Your task to perform on an android device: toggle sleep mode Image 0: 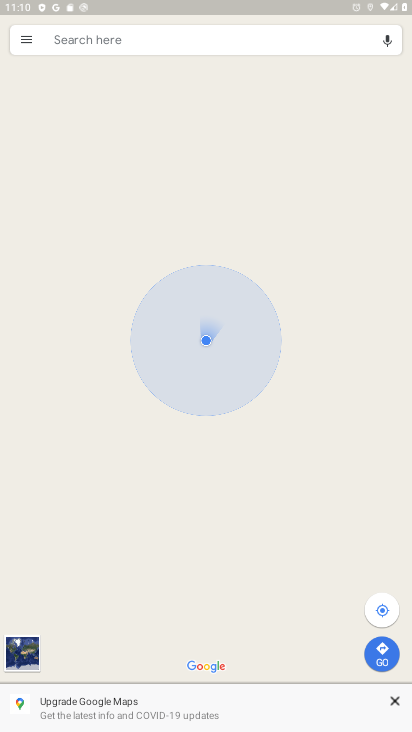
Step 0: press home button
Your task to perform on an android device: toggle sleep mode Image 1: 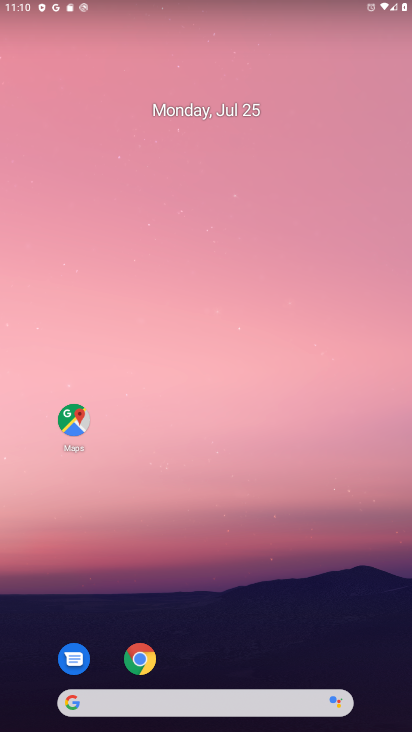
Step 1: drag from (236, 560) to (128, 3)
Your task to perform on an android device: toggle sleep mode Image 2: 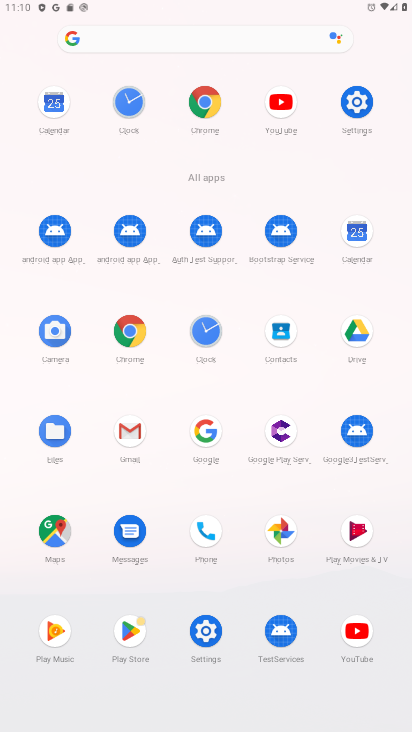
Step 2: click (360, 97)
Your task to perform on an android device: toggle sleep mode Image 3: 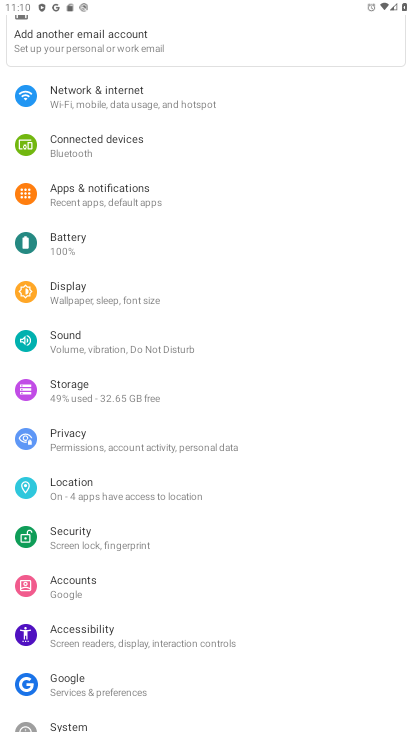
Step 3: click (77, 286)
Your task to perform on an android device: toggle sleep mode Image 4: 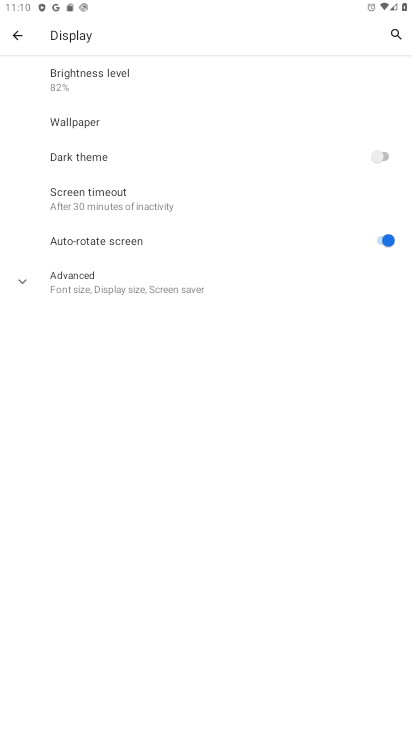
Step 4: task complete